Your task to perform on an android device: Open accessibility settings Image 0: 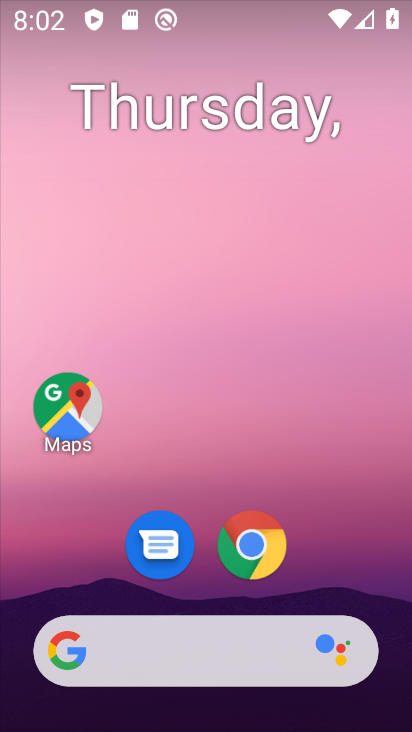
Step 0: drag from (270, 588) to (325, 207)
Your task to perform on an android device: Open accessibility settings Image 1: 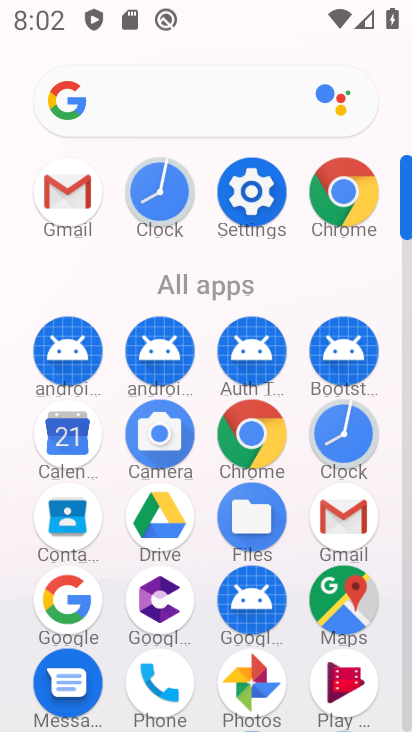
Step 1: click (253, 183)
Your task to perform on an android device: Open accessibility settings Image 2: 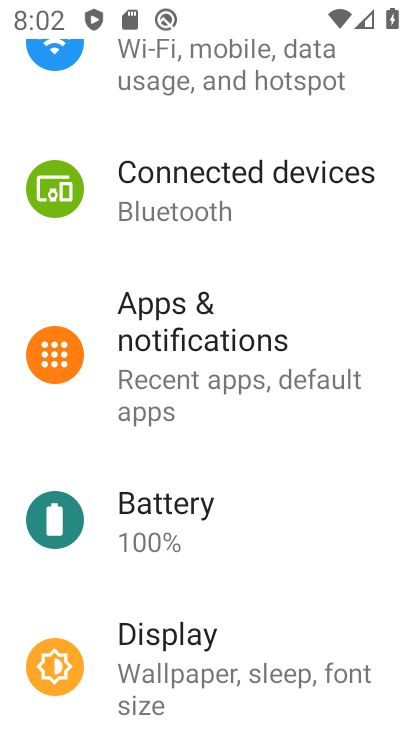
Step 2: drag from (295, 715) to (255, 8)
Your task to perform on an android device: Open accessibility settings Image 3: 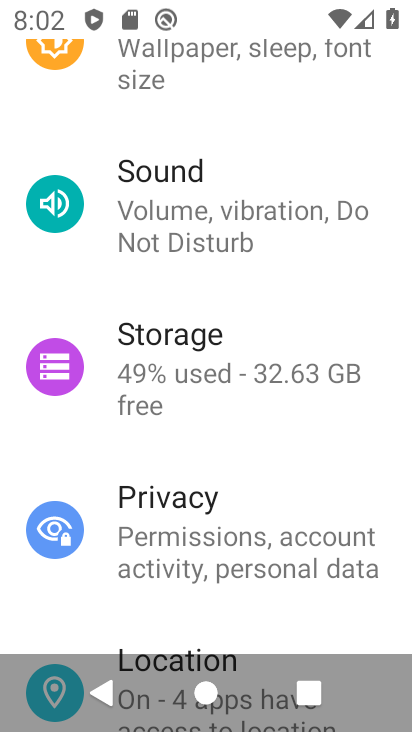
Step 3: drag from (193, 559) to (315, 66)
Your task to perform on an android device: Open accessibility settings Image 4: 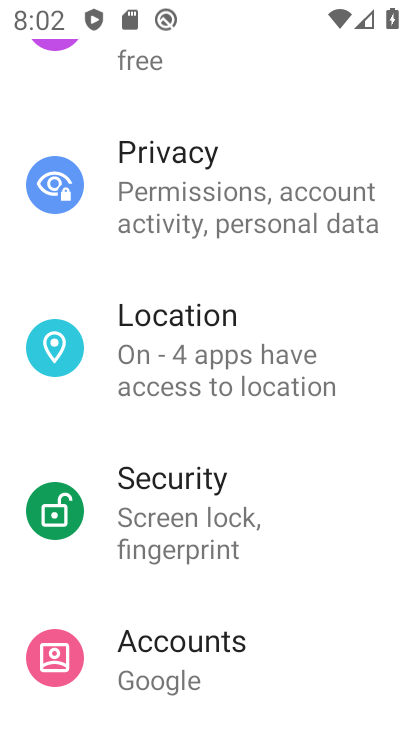
Step 4: drag from (175, 631) to (256, 63)
Your task to perform on an android device: Open accessibility settings Image 5: 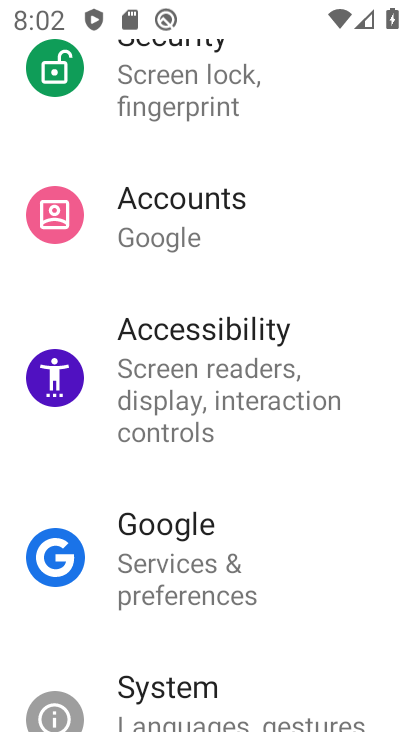
Step 5: click (214, 347)
Your task to perform on an android device: Open accessibility settings Image 6: 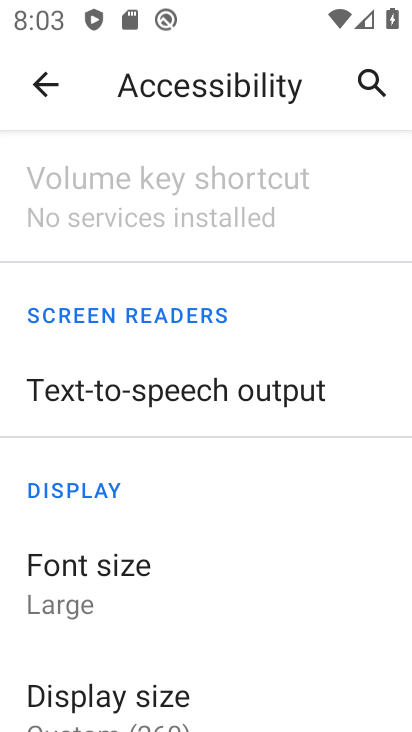
Step 6: task complete